Your task to perform on an android device: Open Google Maps and go to "Timeline" Image 0: 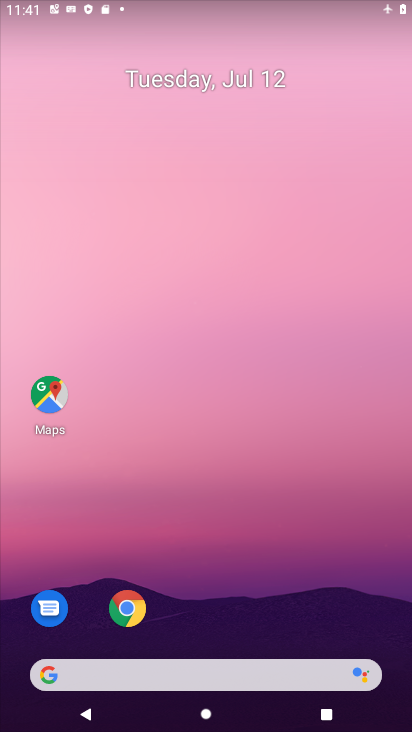
Step 0: drag from (231, 704) to (233, 113)
Your task to perform on an android device: Open Google Maps and go to "Timeline" Image 1: 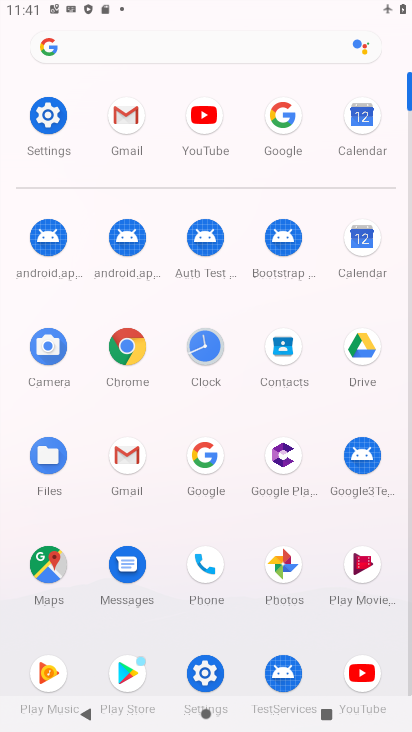
Step 1: click (44, 566)
Your task to perform on an android device: Open Google Maps and go to "Timeline" Image 2: 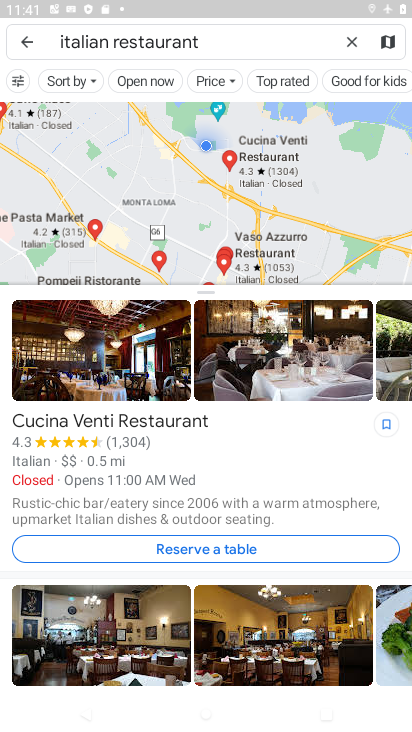
Step 2: task complete